Your task to perform on an android device: Go to notification settings Image 0: 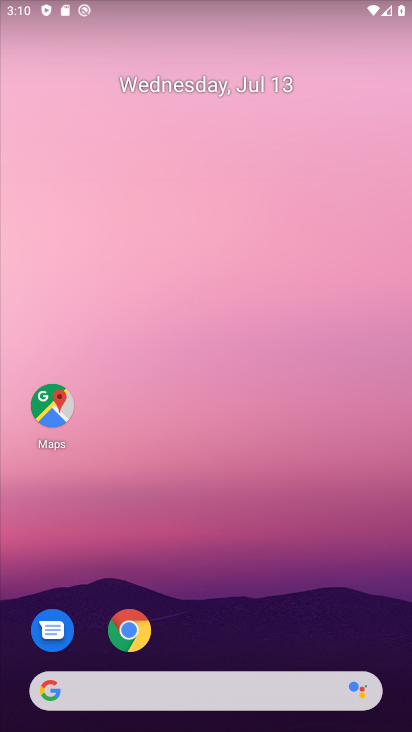
Step 0: drag from (294, 580) to (251, 67)
Your task to perform on an android device: Go to notification settings Image 1: 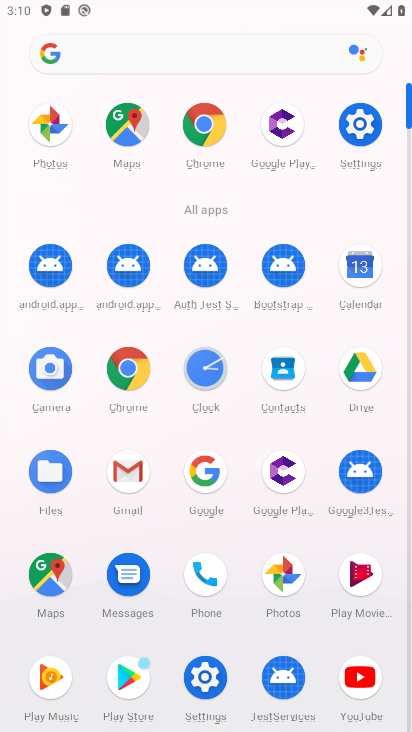
Step 1: click (360, 124)
Your task to perform on an android device: Go to notification settings Image 2: 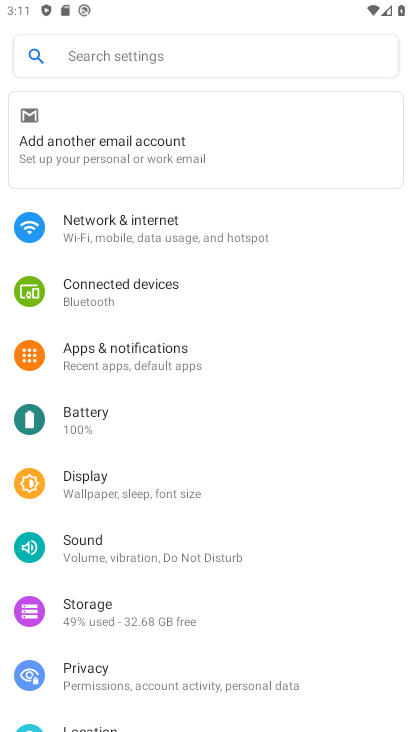
Step 2: click (141, 350)
Your task to perform on an android device: Go to notification settings Image 3: 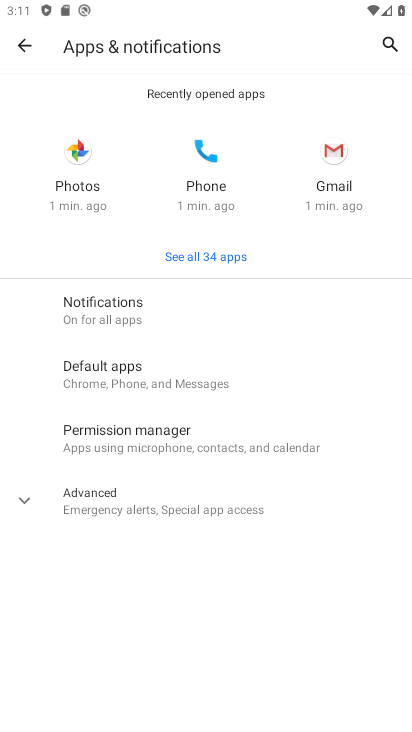
Step 3: task complete